Your task to perform on an android device: turn off smart reply in the gmail app Image 0: 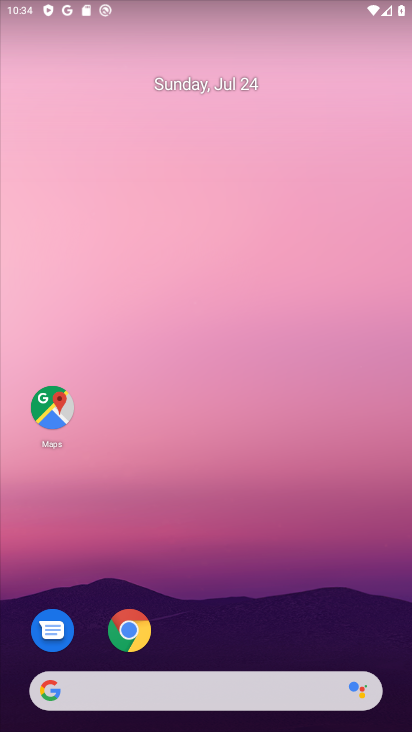
Step 0: press home button
Your task to perform on an android device: turn off smart reply in the gmail app Image 1: 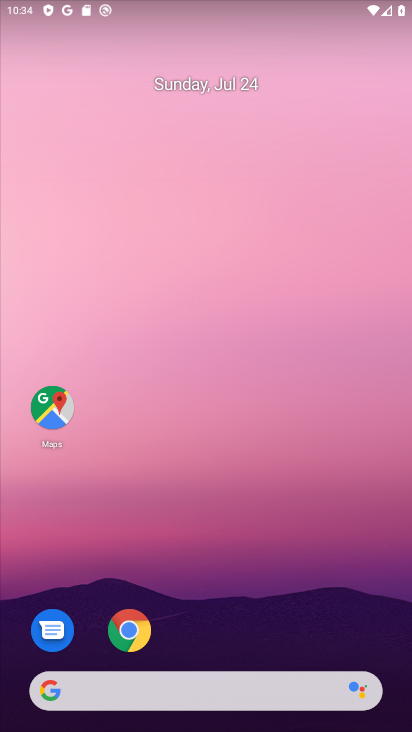
Step 1: drag from (270, 610) to (276, 54)
Your task to perform on an android device: turn off smart reply in the gmail app Image 2: 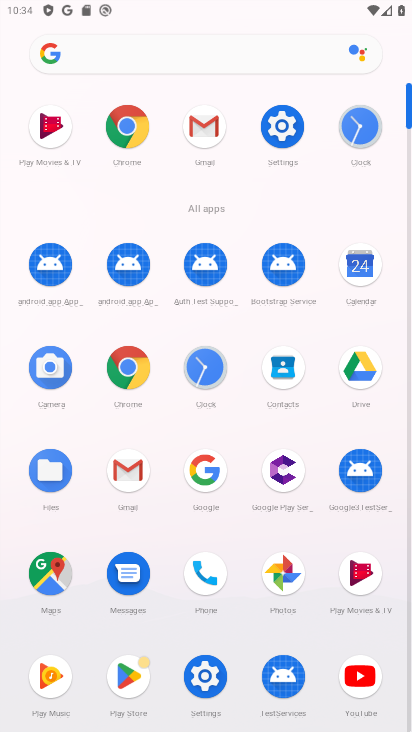
Step 2: click (212, 129)
Your task to perform on an android device: turn off smart reply in the gmail app Image 3: 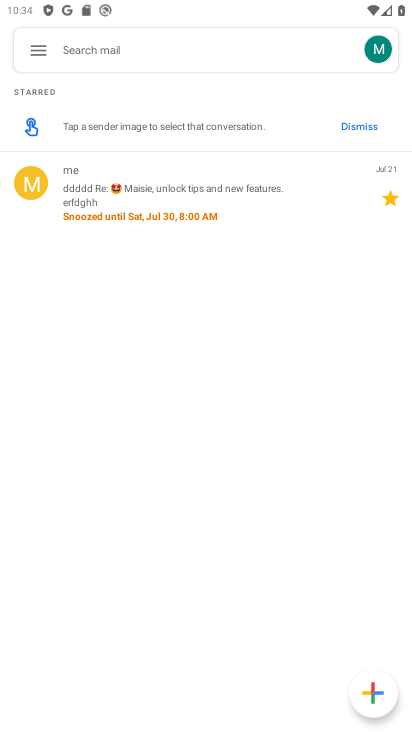
Step 3: click (34, 52)
Your task to perform on an android device: turn off smart reply in the gmail app Image 4: 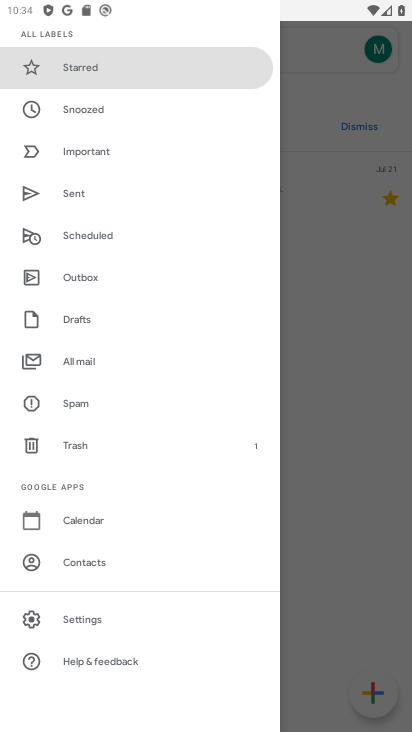
Step 4: click (89, 619)
Your task to perform on an android device: turn off smart reply in the gmail app Image 5: 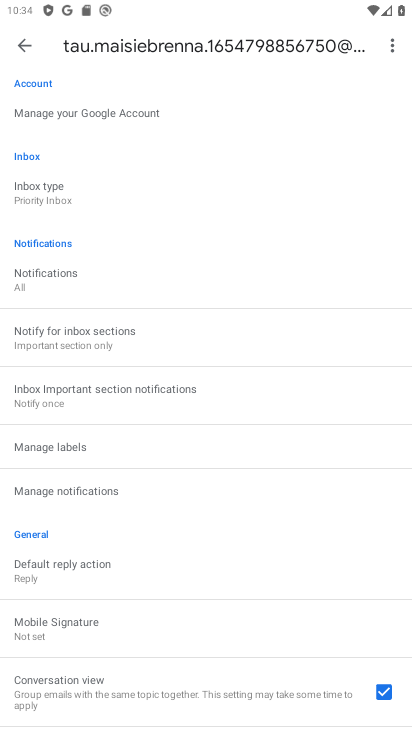
Step 5: drag from (167, 654) to (185, 334)
Your task to perform on an android device: turn off smart reply in the gmail app Image 6: 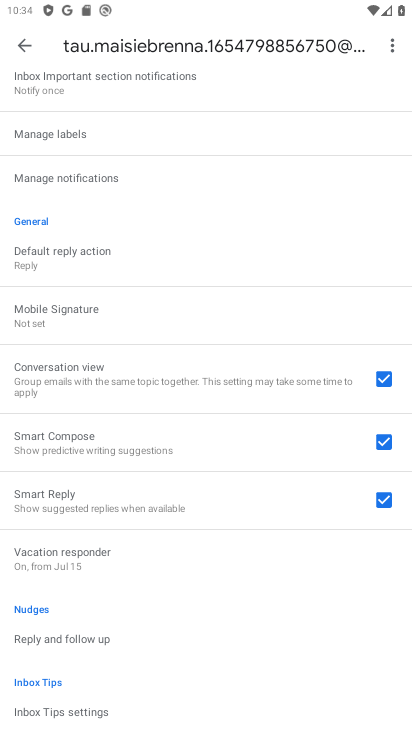
Step 6: click (385, 492)
Your task to perform on an android device: turn off smart reply in the gmail app Image 7: 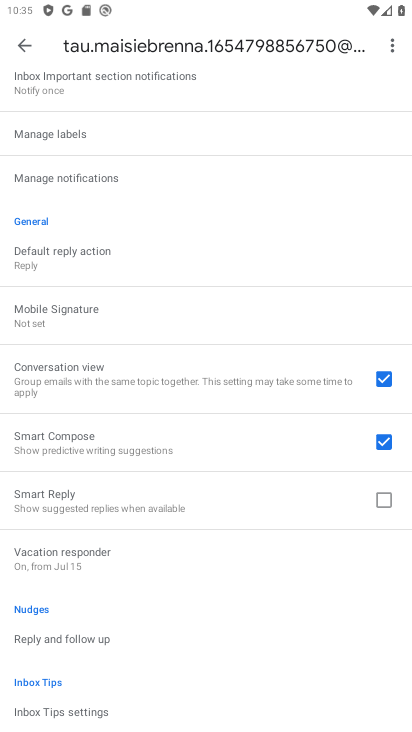
Step 7: task complete